Your task to perform on an android device: toggle pop-ups in chrome Image 0: 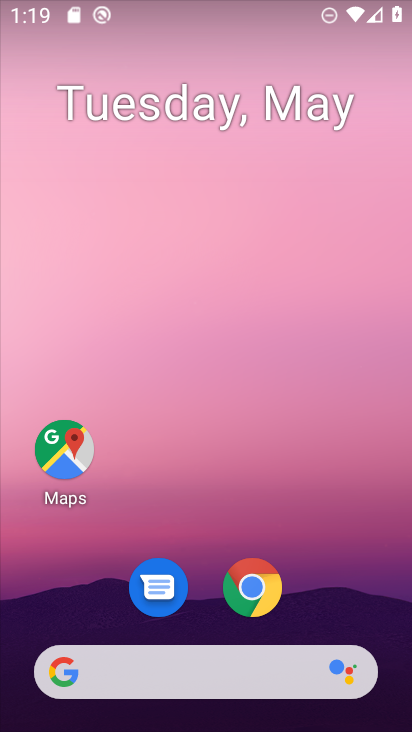
Step 0: click (239, 598)
Your task to perform on an android device: toggle pop-ups in chrome Image 1: 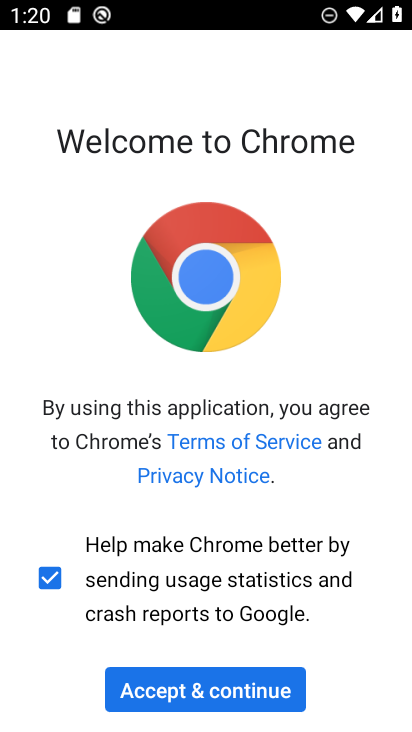
Step 1: click (254, 703)
Your task to perform on an android device: toggle pop-ups in chrome Image 2: 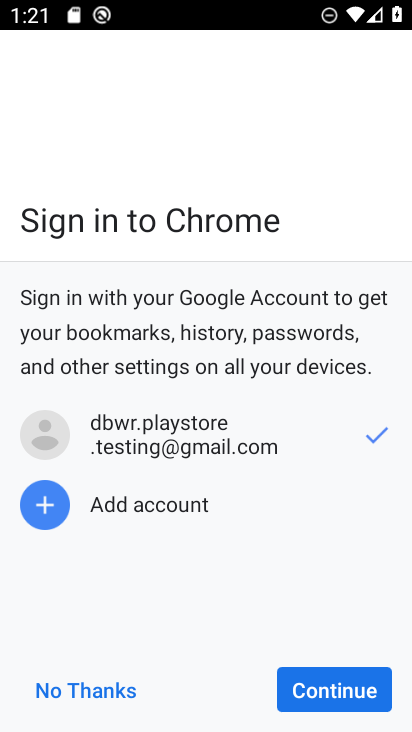
Step 2: click (325, 679)
Your task to perform on an android device: toggle pop-ups in chrome Image 3: 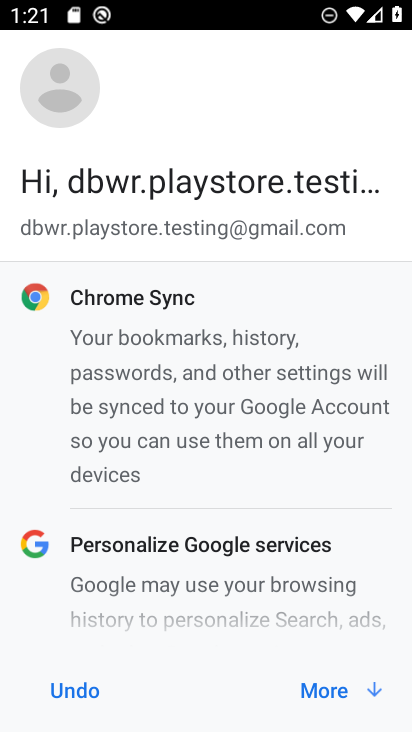
Step 3: click (325, 679)
Your task to perform on an android device: toggle pop-ups in chrome Image 4: 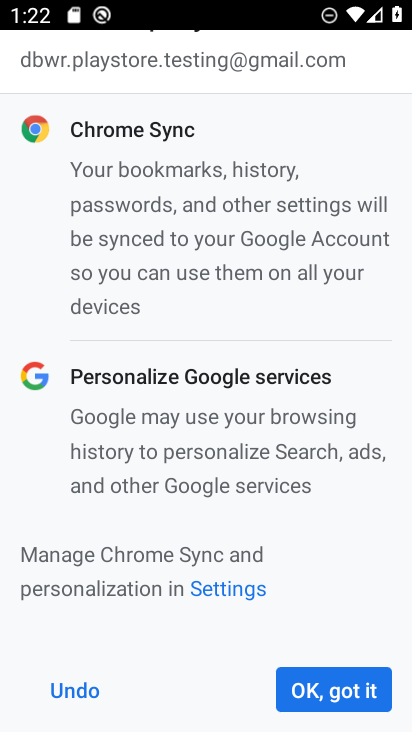
Step 4: click (324, 689)
Your task to perform on an android device: toggle pop-ups in chrome Image 5: 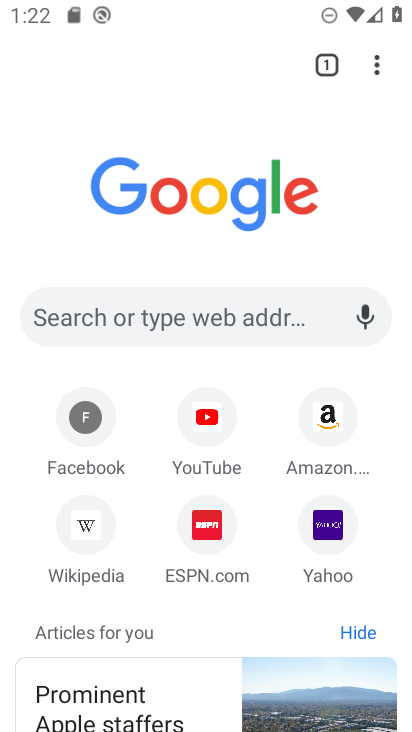
Step 5: click (374, 61)
Your task to perform on an android device: toggle pop-ups in chrome Image 6: 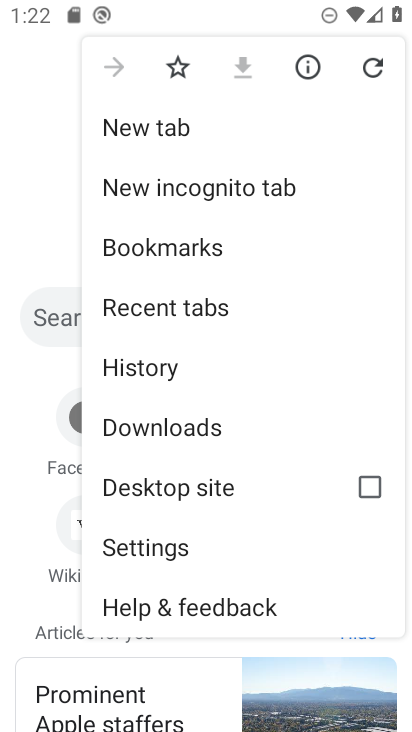
Step 6: click (143, 558)
Your task to perform on an android device: toggle pop-ups in chrome Image 7: 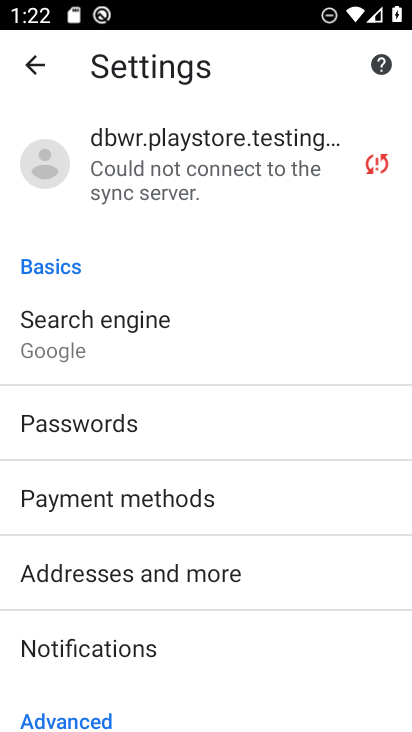
Step 7: drag from (164, 592) to (165, 21)
Your task to perform on an android device: toggle pop-ups in chrome Image 8: 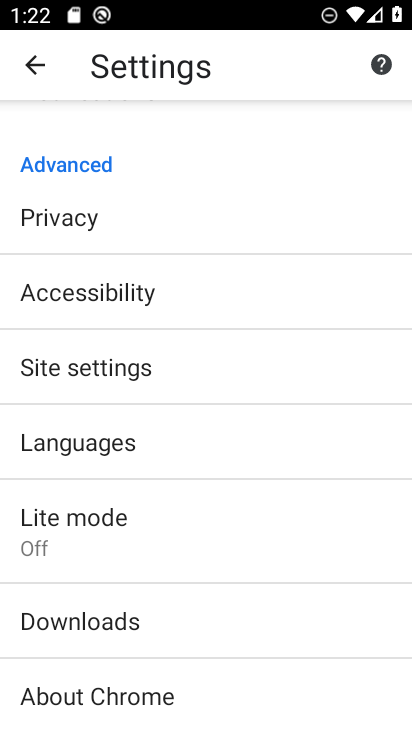
Step 8: click (85, 388)
Your task to perform on an android device: toggle pop-ups in chrome Image 9: 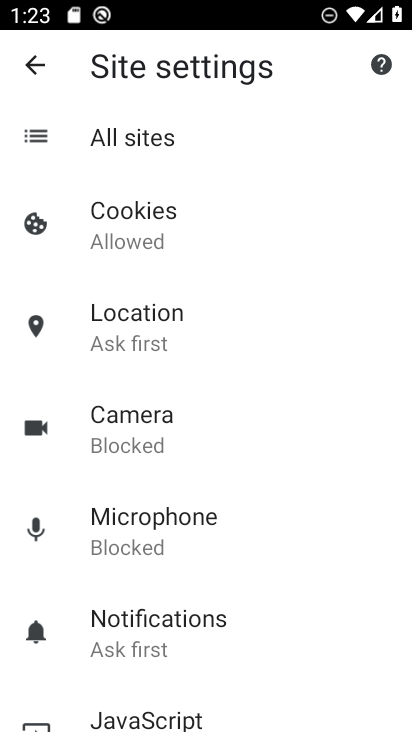
Step 9: drag from (156, 661) to (158, 329)
Your task to perform on an android device: toggle pop-ups in chrome Image 10: 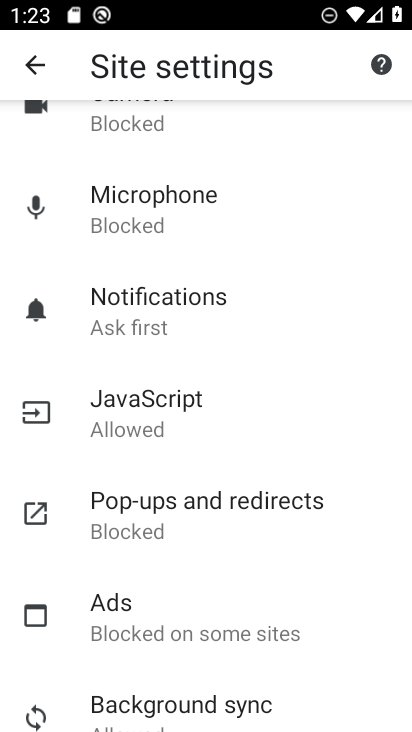
Step 10: click (182, 518)
Your task to perform on an android device: toggle pop-ups in chrome Image 11: 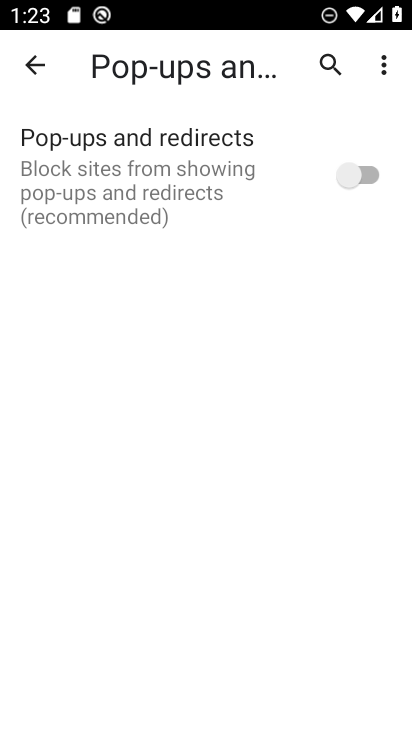
Step 11: click (361, 176)
Your task to perform on an android device: toggle pop-ups in chrome Image 12: 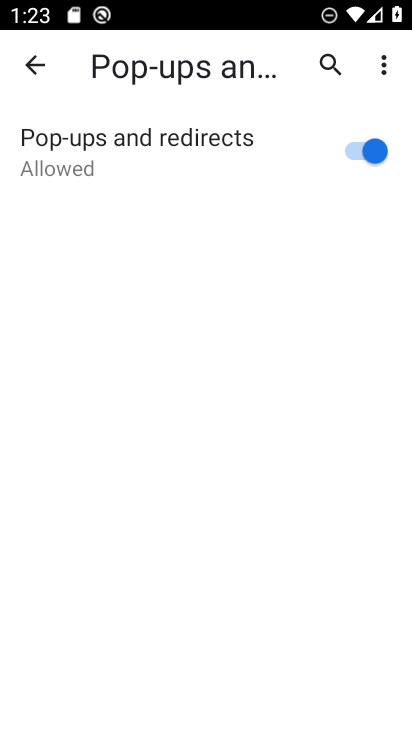
Step 12: click (361, 176)
Your task to perform on an android device: toggle pop-ups in chrome Image 13: 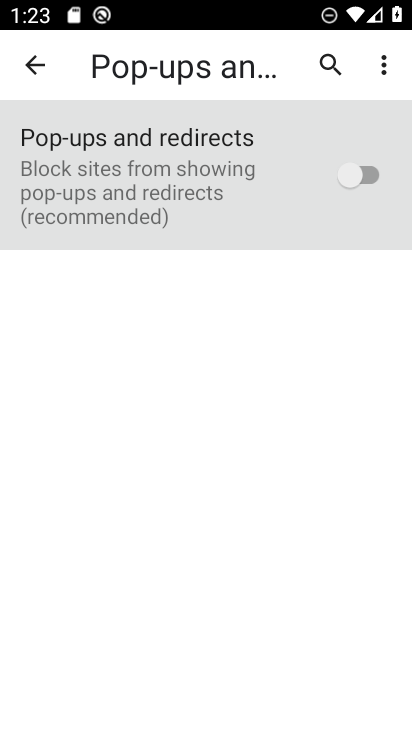
Step 13: click (361, 176)
Your task to perform on an android device: toggle pop-ups in chrome Image 14: 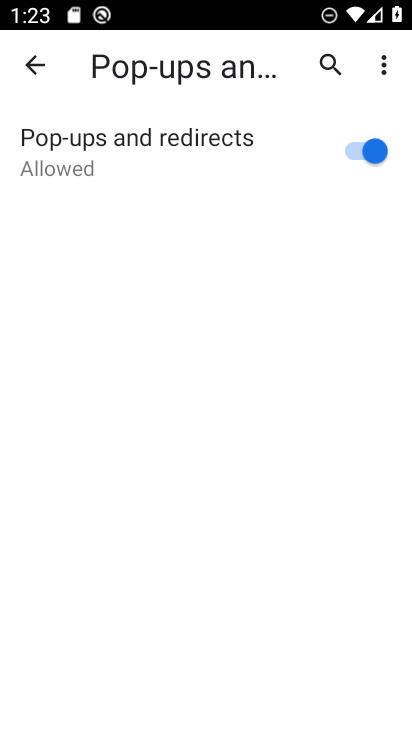
Step 14: task complete